Your task to perform on an android device: Search for the best rated soccer ball on AliExpress Image 0: 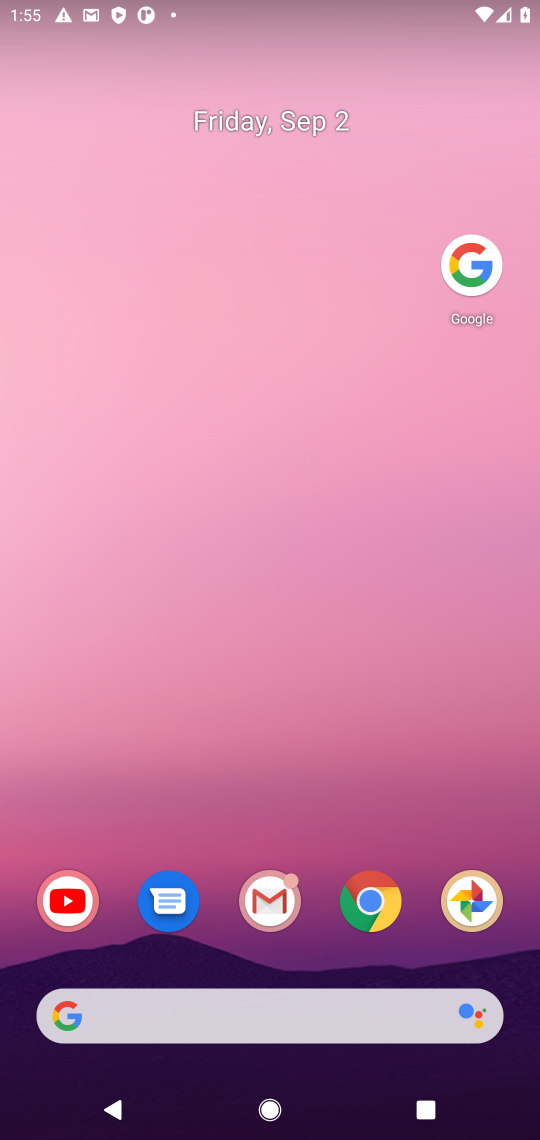
Step 0: click (427, 187)
Your task to perform on an android device: Search for the best rated soccer ball on AliExpress Image 1: 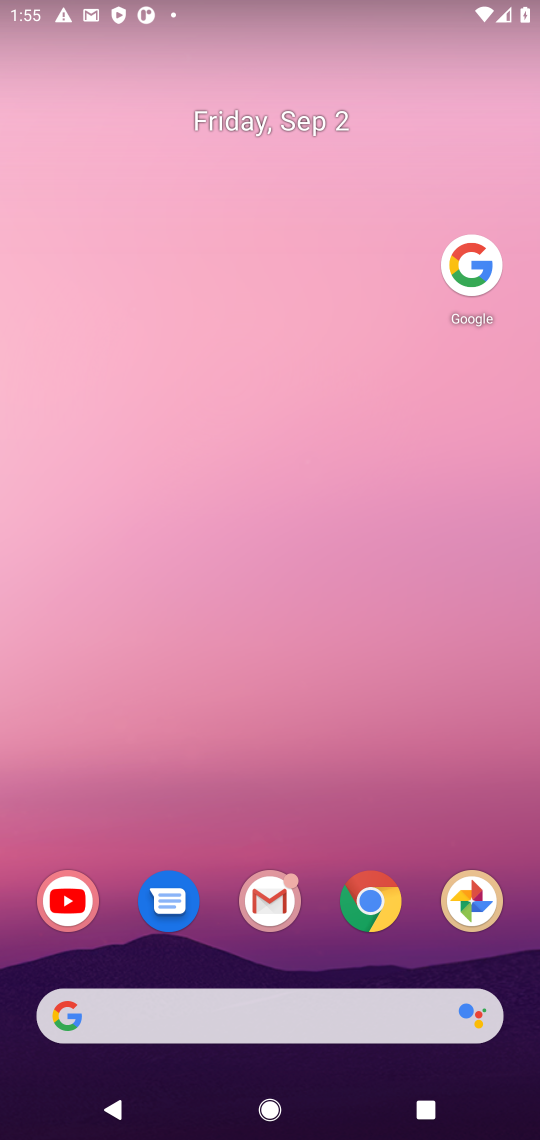
Step 1: drag from (335, 727) to (361, 329)
Your task to perform on an android device: Search for the best rated soccer ball on AliExpress Image 2: 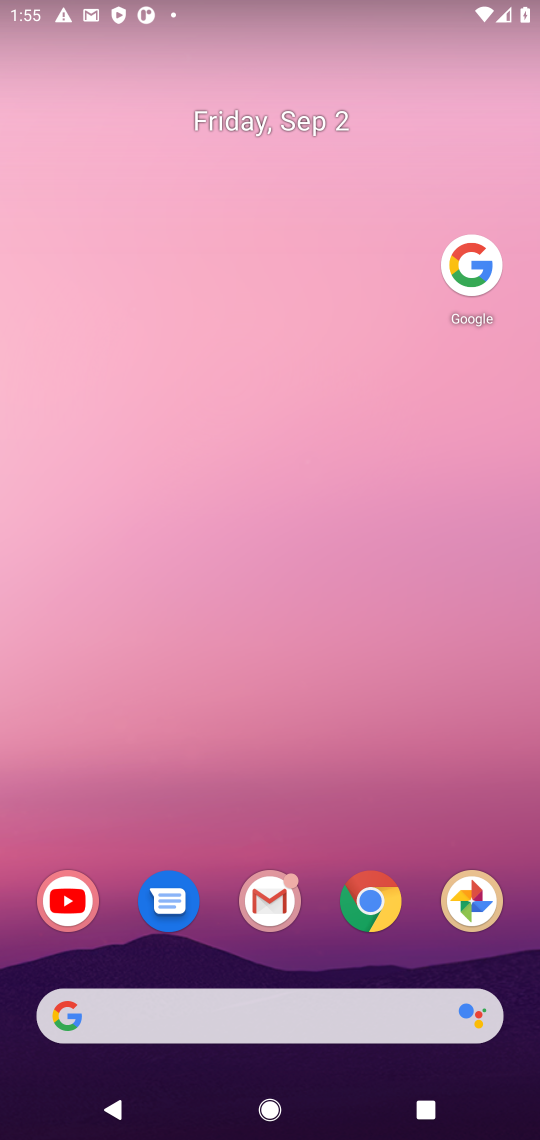
Step 2: drag from (314, 942) to (309, 225)
Your task to perform on an android device: Search for the best rated soccer ball on AliExpress Image 3: 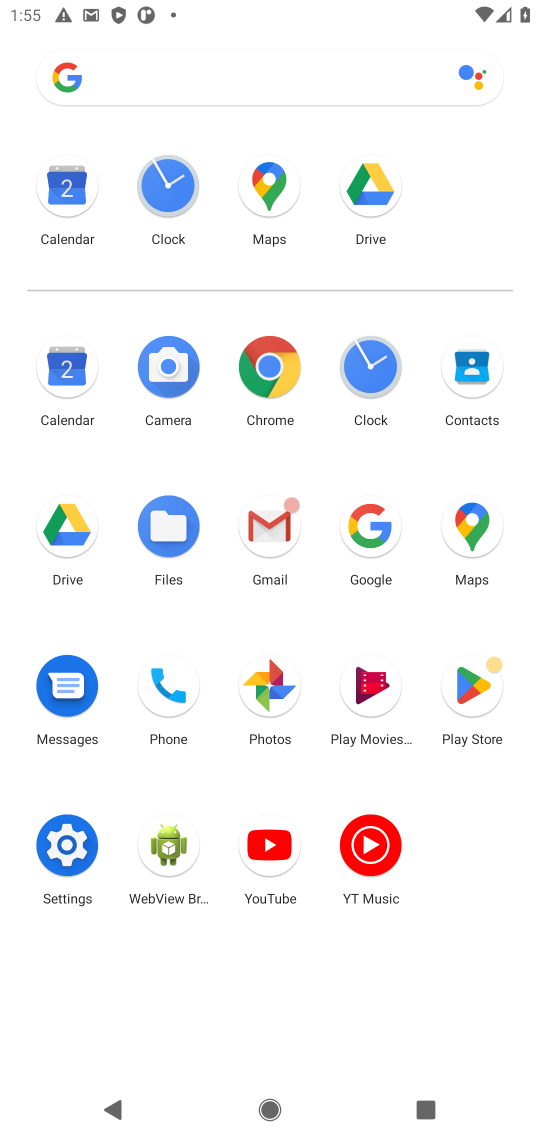
Step 3: click (370, 528)
Your task to perform on an android device: Search for the best rated soccer ball on AliExpress Image 4: 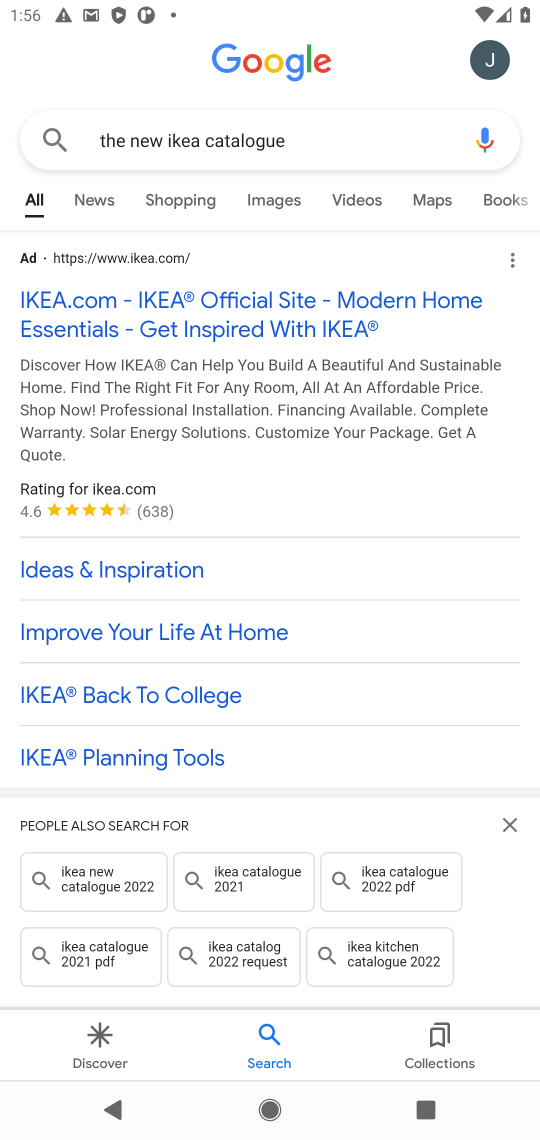
Step 4: click (291, 136)
Your task to perform on an android device: Search for the best rated soccer ball on AliExpress Image 5: 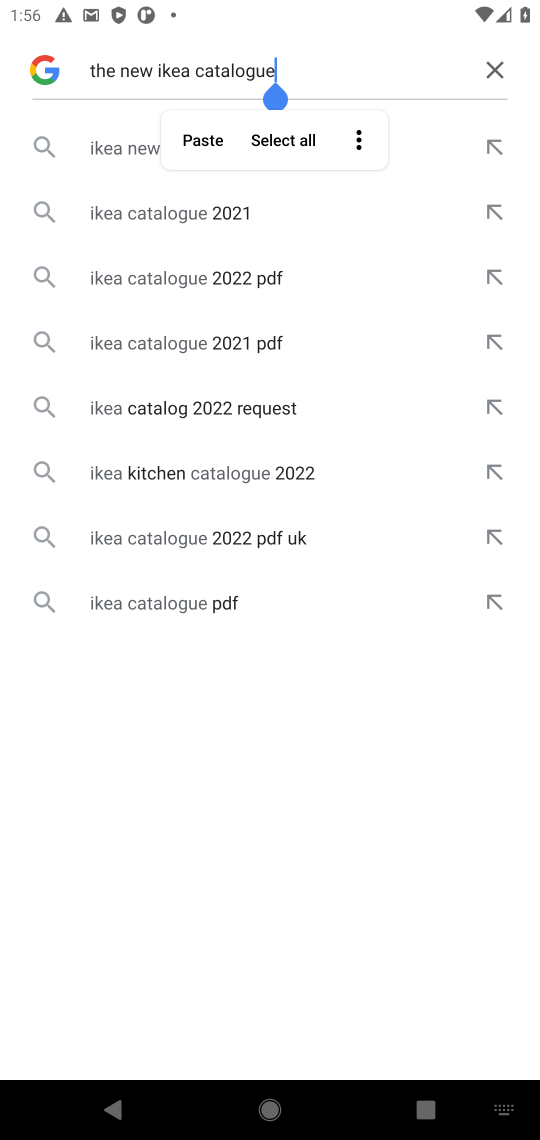
Step 5: click (498, 77)
Your task to perform on an android device: Search for the best rated soccer ball on AliExpress Image 6: 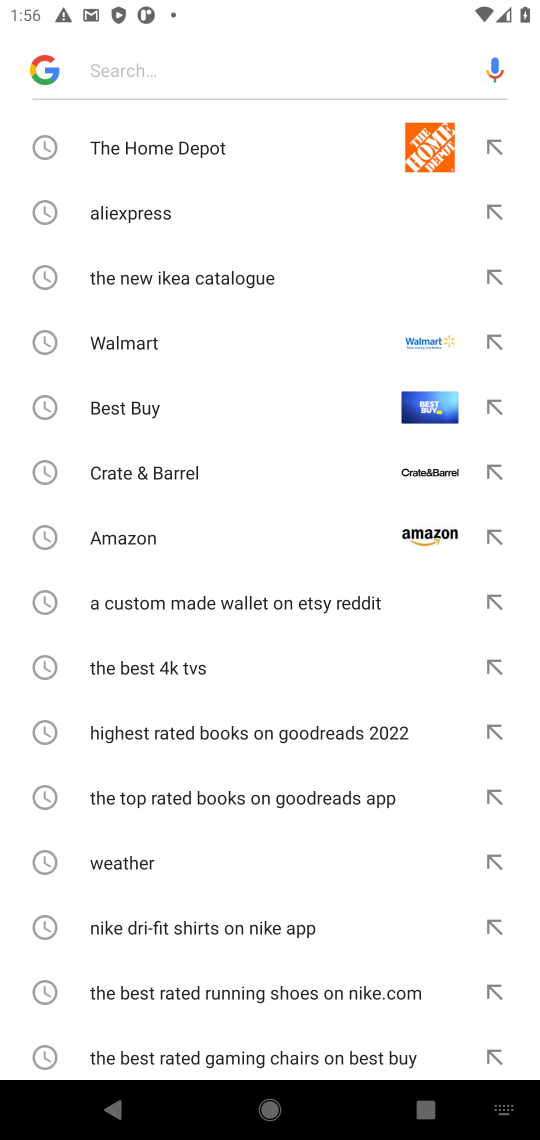
Step 6: click (312, 59)
Your task to perform on an android device: Search for the best rated soccer ball on AliExpress Image 7: 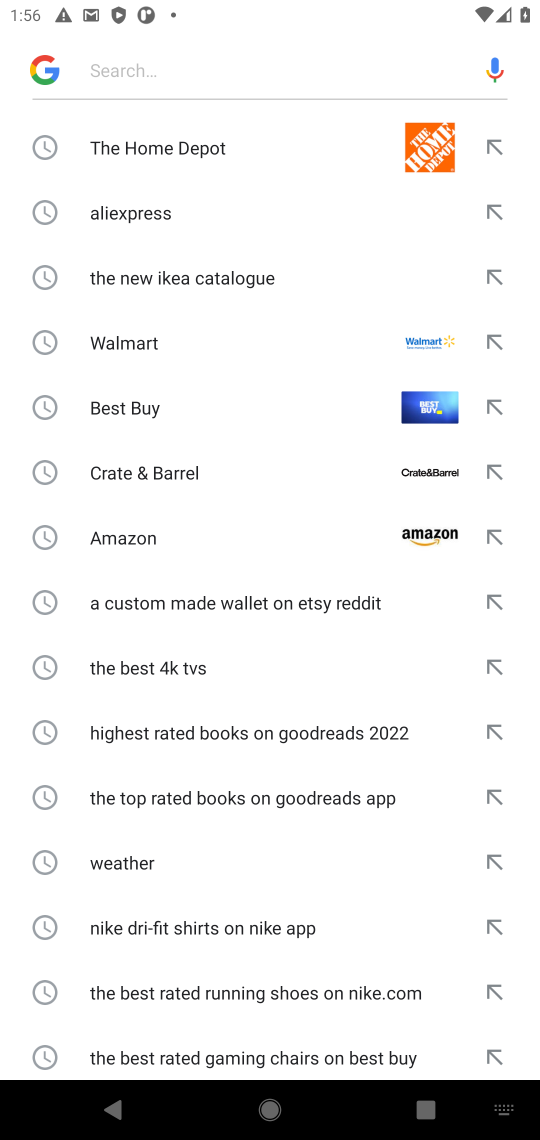
Step 7: type "the best rated soccer ball on AliExpress "
Your task to perform on an android device: Search for the best rated soccer ball on AliExpress Image 8: 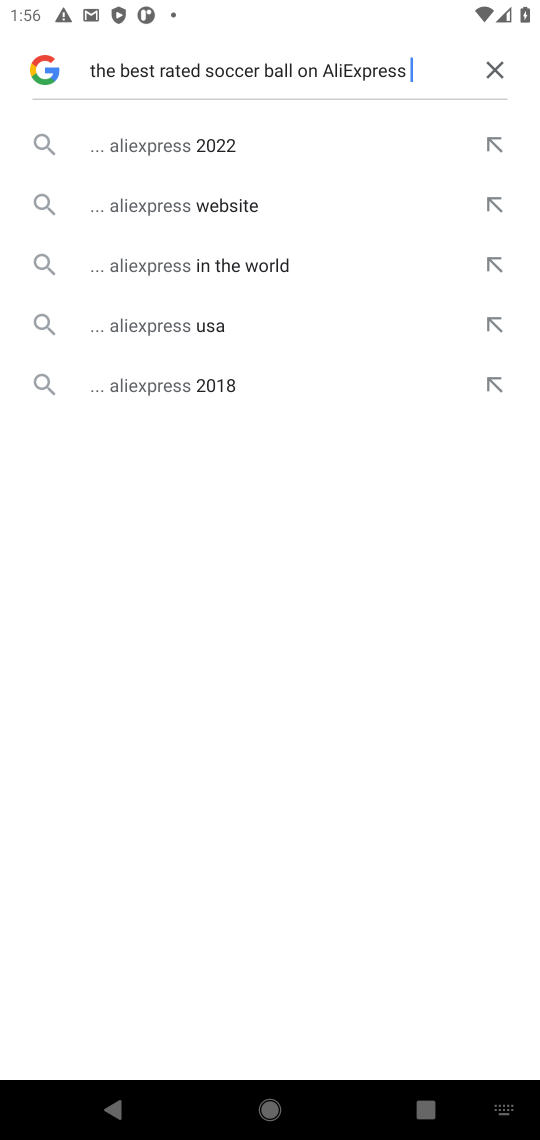
Step 8: click (182, 307)
Your task to perform on an android device: Search for the best rated soccer ball on AliExpress Image 9: 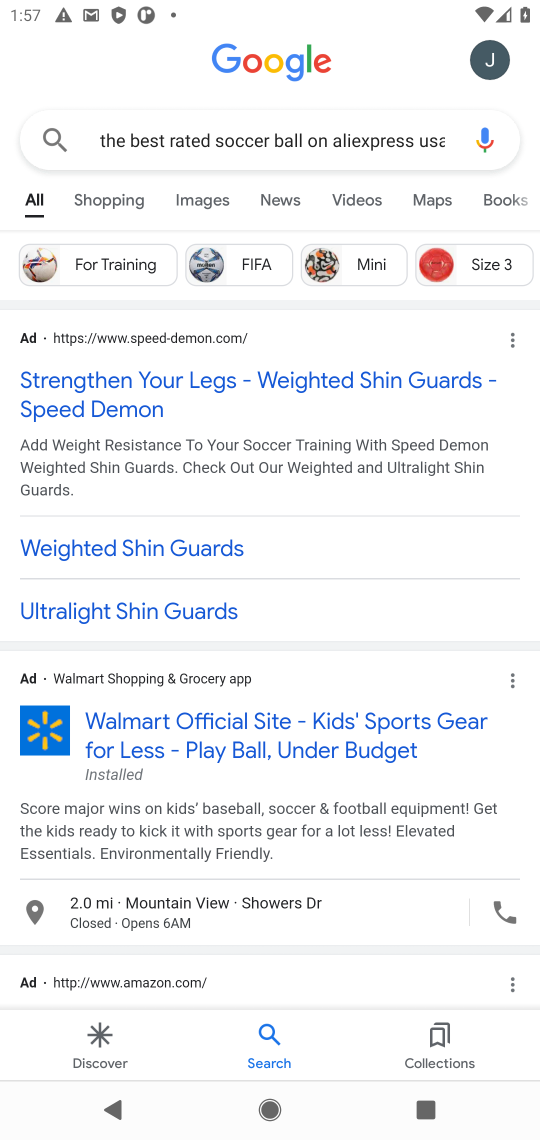
Step 9: drag from (319, 829) to (361, 440)
Your task to perform on an android device: Search for the best rated soccer ball on AliExpress Image 10: 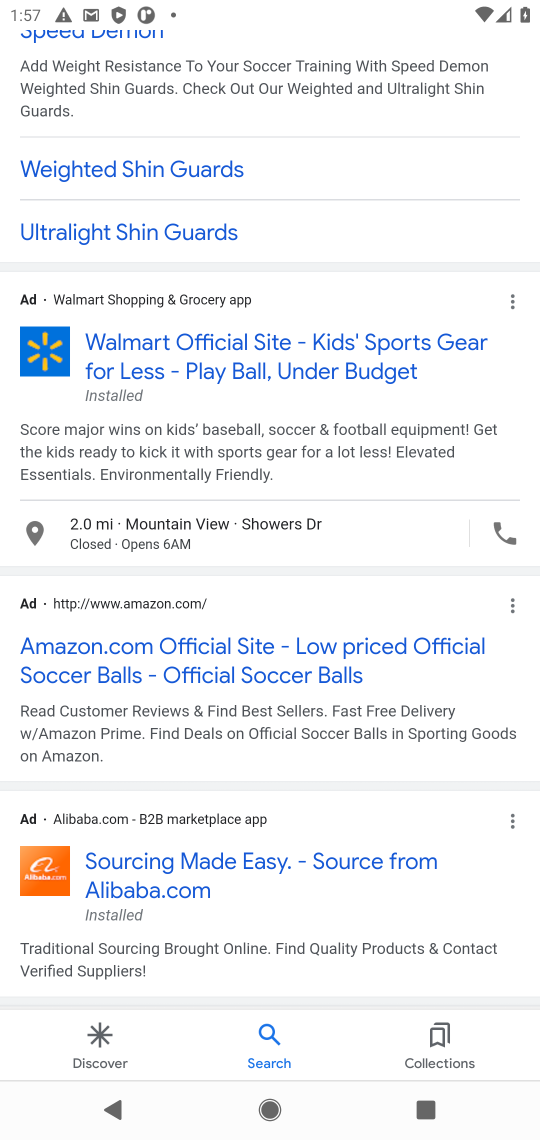
Step 10: drag from (168, 942) to (279, 412)
Your task to perform on an android device: Search for the best rated soccer ball on AliExpress Image 11: 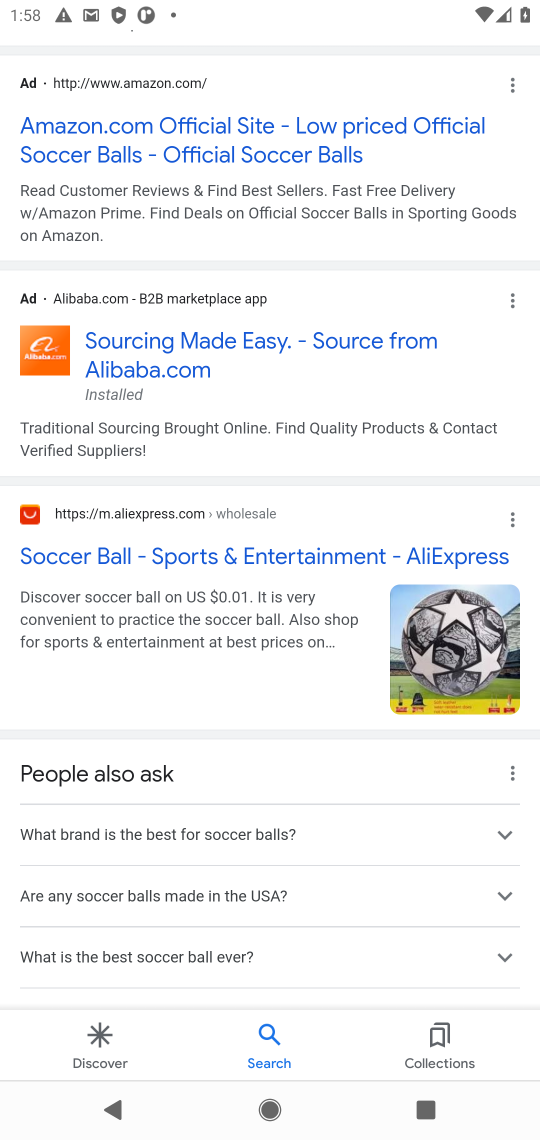
Step 11: click (273, 556)
Your task to perform on an android device: Search for the best rated soccer ball on AliExpress Image 12: 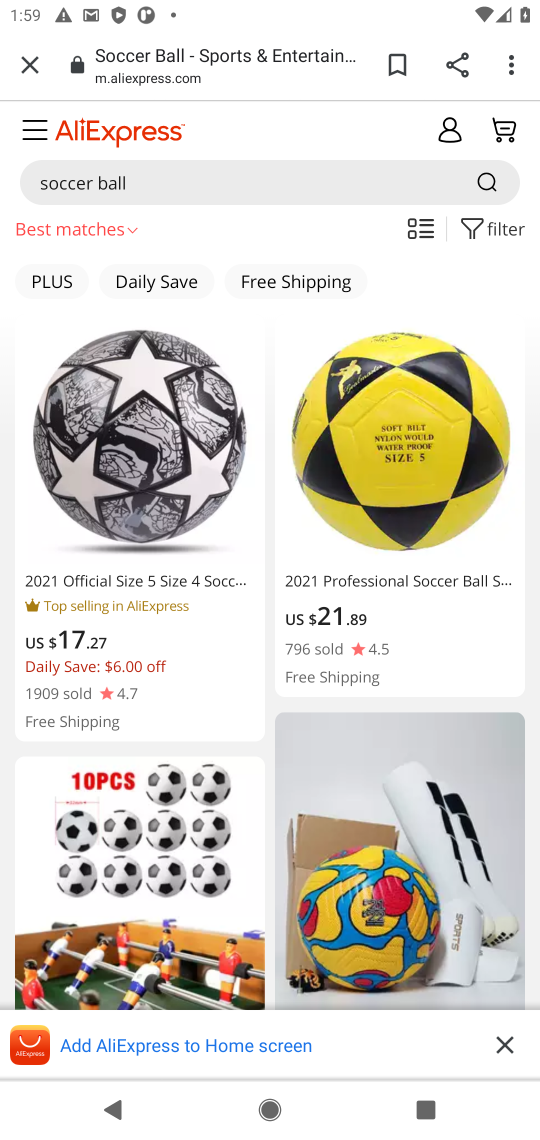
Step 12: task complete